Your task to perform on an android device: turn off picture-in-picture Image 0: 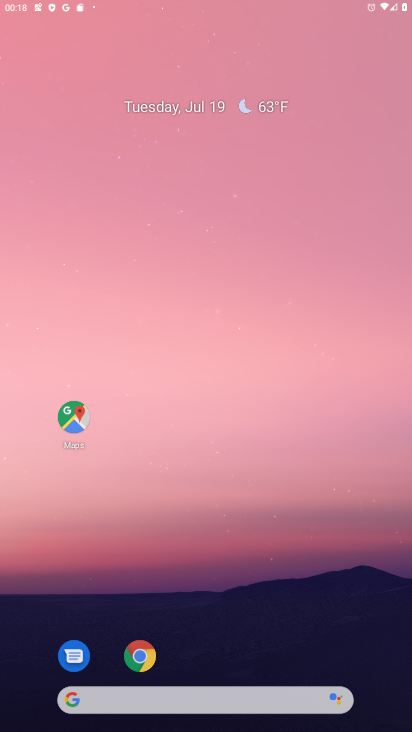
Step 0: press home button
Your task to perform on an android device: turn off picture-in-picture Image 1: 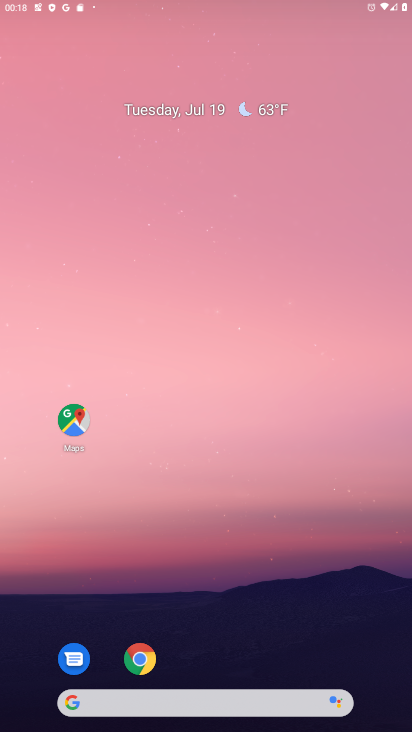
Step 1: press home button
Your task to perform on an android device: turn off picture-in-picture Image 2: 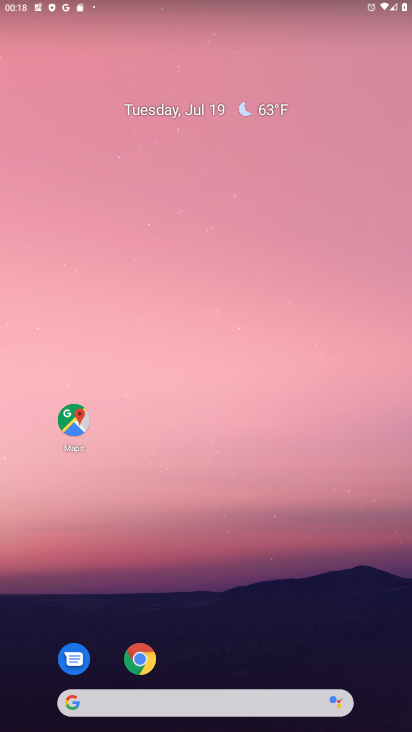
Step 2: press home button
Your task to perform on an android device: turn off picture-in-picture Image 3: 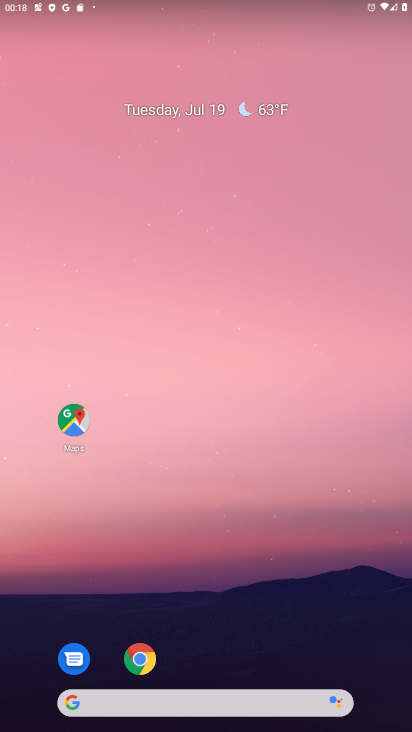
Step 3: click (154, 658)
Your task to perform on an android device: turn off picture-in-picture Image 4: 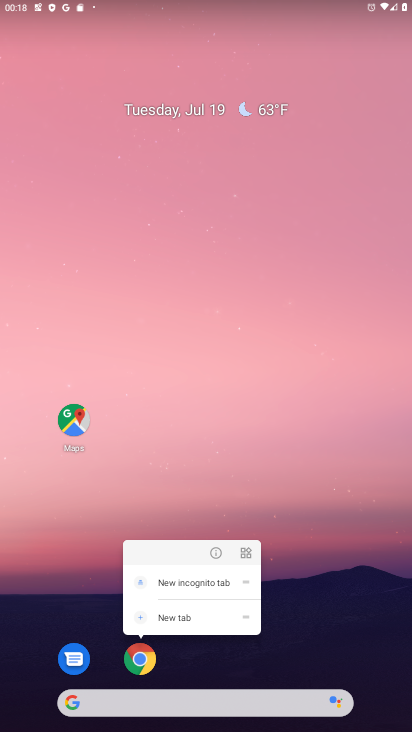
Step 4: click (215, 550)
Your task to perform on an android device: turn off picture-in-picture Image 5: 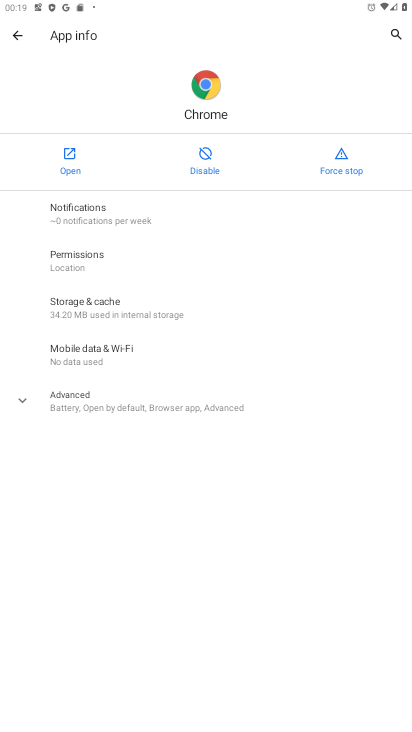
Step 5: click (71, 425)
Your task to perform on an android device: turn off picture-in-picture Image 6: 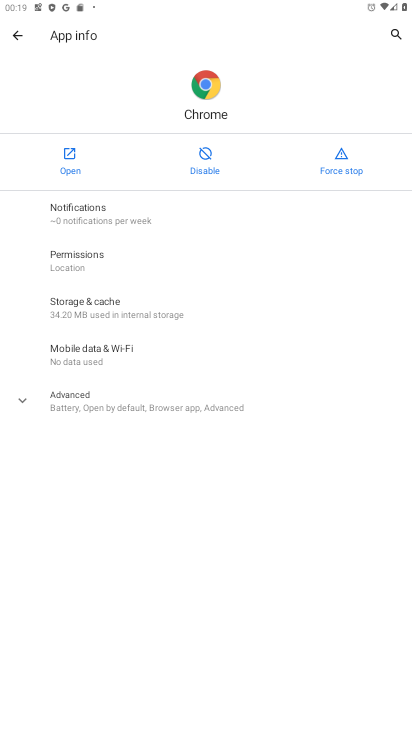
Step 6: click (79, 405)
Your task to perform on an android device: turn off picture-in-picture Image 7: 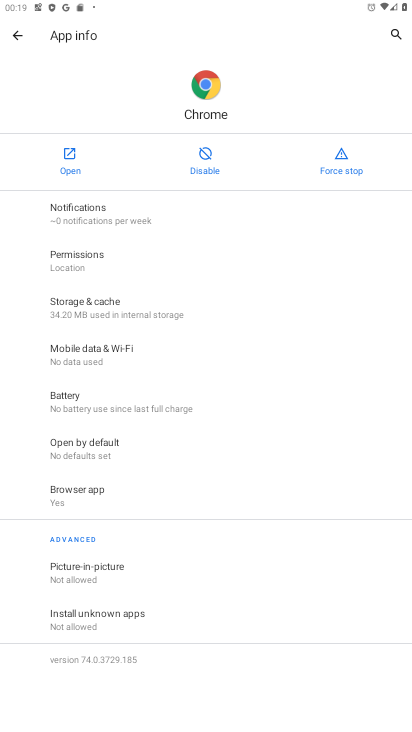
Step 7: click (83, 567)
Your task to perform on an android device: turn off picture-in-picture Image 8: 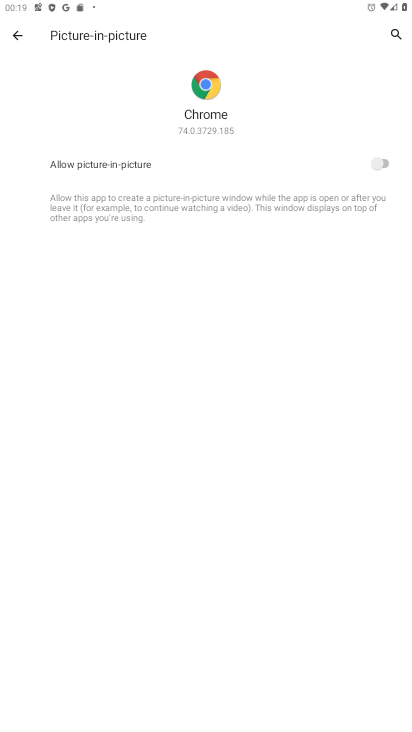
Step 8: task complete